Your task to perform on an android device: Open sound settings Image 0: 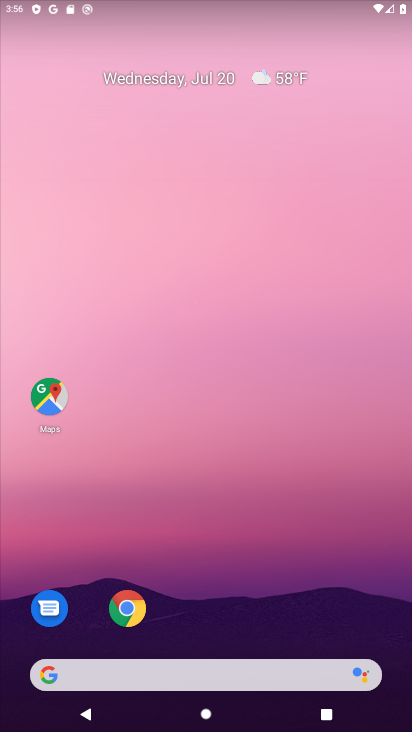
Step 0: drag from (212, 635) to (255, 84)
Your task to perform on an android device: Open sound settings Image 1: 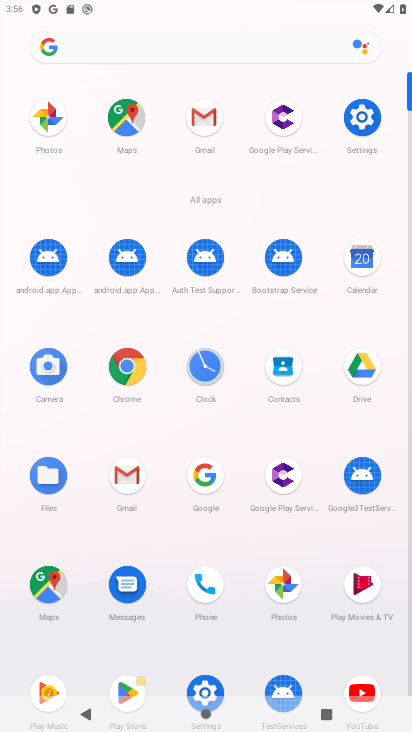
Step 1: click (204, 676)
Your task to perform on an android device: Open sound settings Image 2: 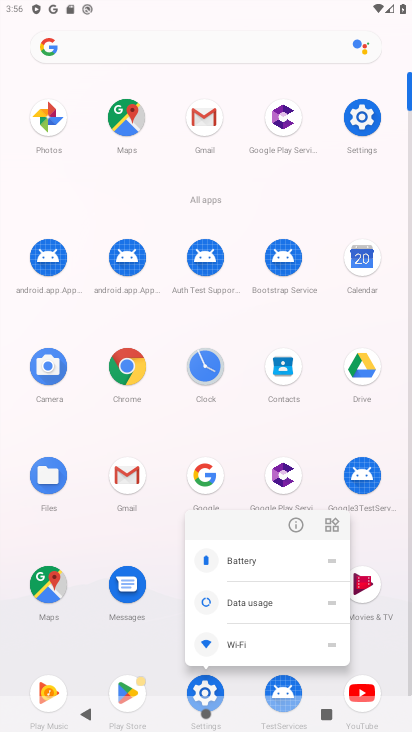
Step 2: click (212, 683)
Your task to perform on an android device: Open sound settings Image 3: 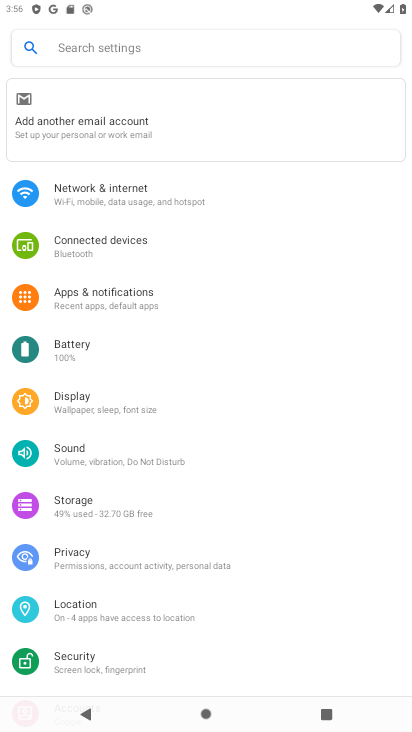
Step 3: click (95, 455)
Your task to perform on an android device: Open sound settings Image 4: 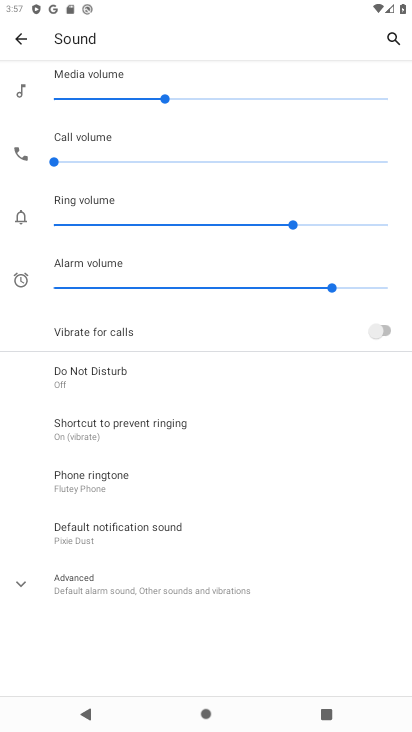
Step 4: task complete